Your task to perform on an android device: change notifications settings Image 0: 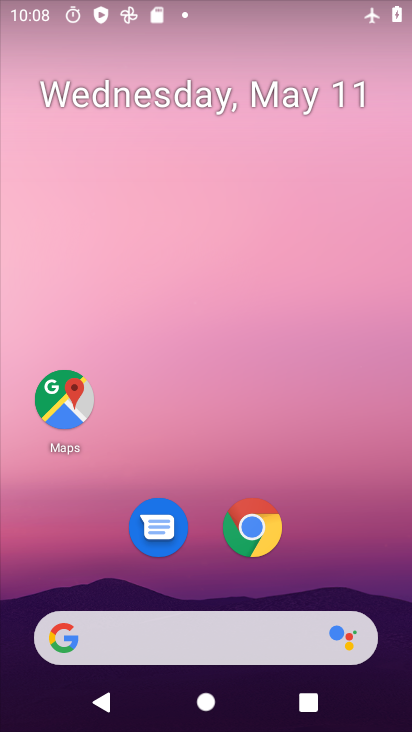
Step 0: drag from (196, 534) to (255, 324)
Your task to perform on an android device: change notifications settings Image 1: 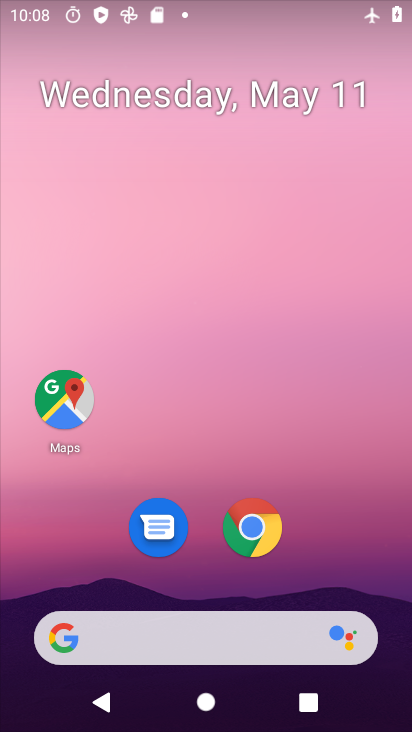
Step 1: drag from (210, 600) to (232, 167)
Your task to perform on an android device: change notifications settings Image 2: 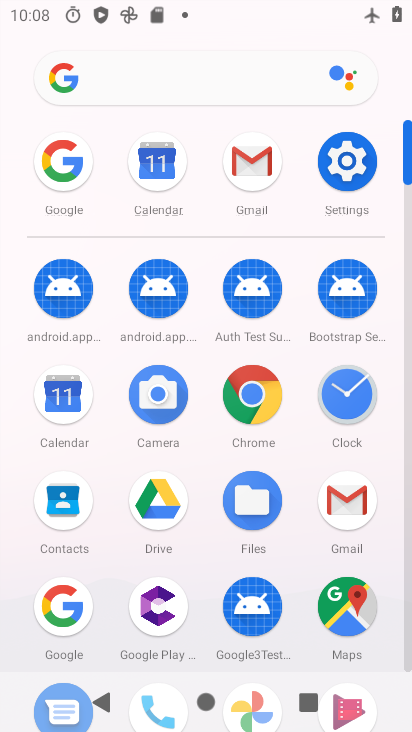
Step 2: click (369, 163)
Your task to perform on an android device: change notifications settings Image 3: 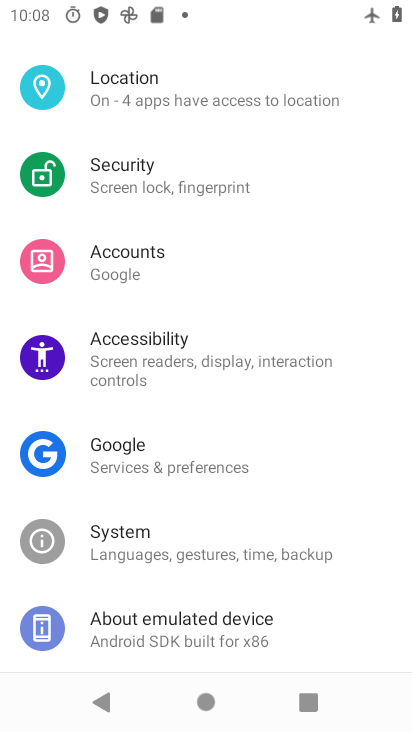
Step 3: drag from (262, 200) to (240, 470)
Your task to perform on an android device: change notifications settings Image 4: 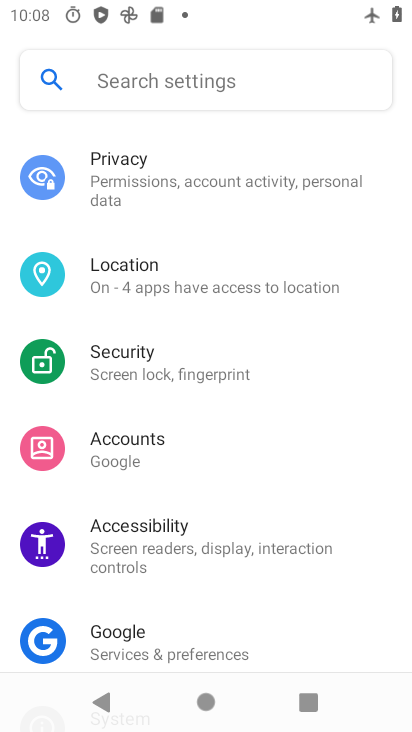
Step 4: drag from (231, 234) to (250, 428)
Your task to perform on an android device: change notifications settings Image 5: 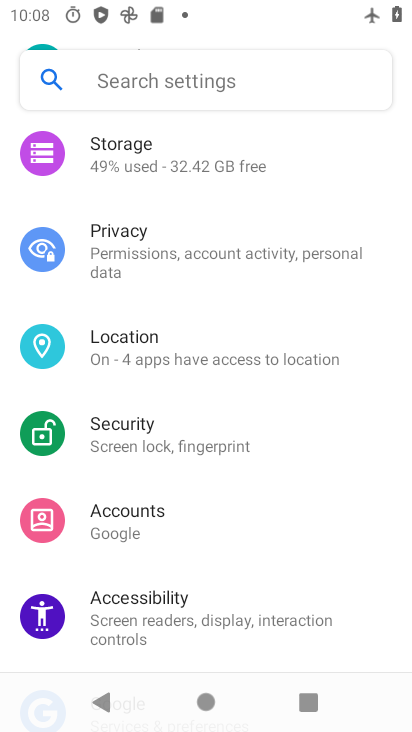
Step 5: drag from (246, 226) to (252, 444)
Your task to perform on an android device: change notifications settings Image 6: 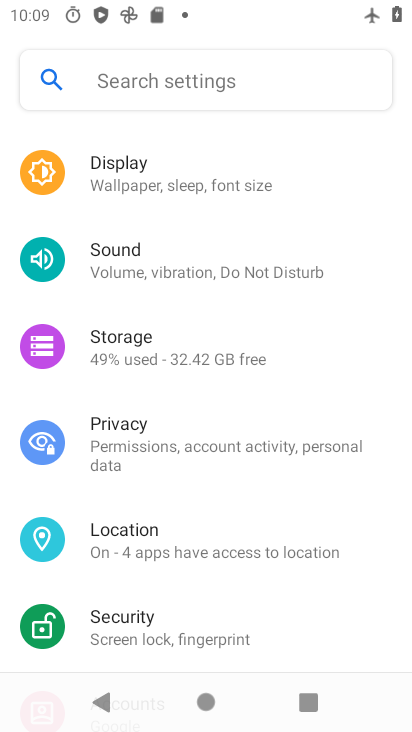
Step 6: drag from (230, 166) to (233, 319)
Your task to perform on an android device: change notifications settings Image 7: 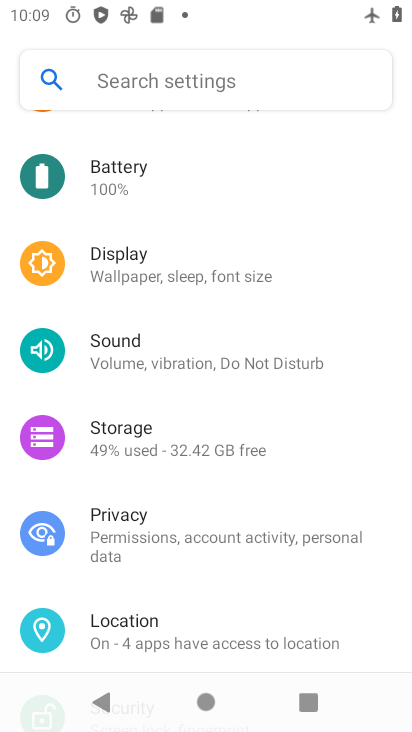
Step 7: drag from (230, 198) to (225, 425)
Your task to perform on an android device: change notifications settings Image 8: 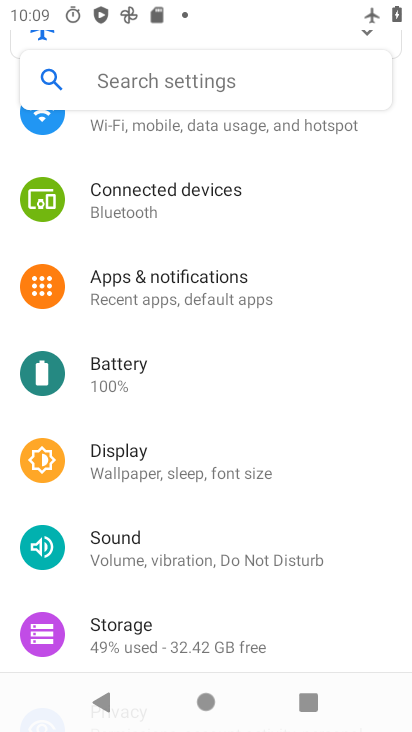
Step 8: click (221, 301)
Your task to perform on an android device: change notifications settings Image 9: 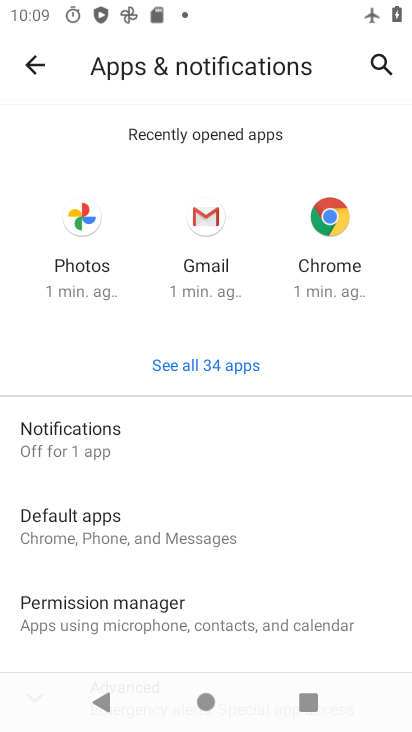
Step 9: click (125, 438)
Your task to perform on an android device: change notifications settings Image 10: 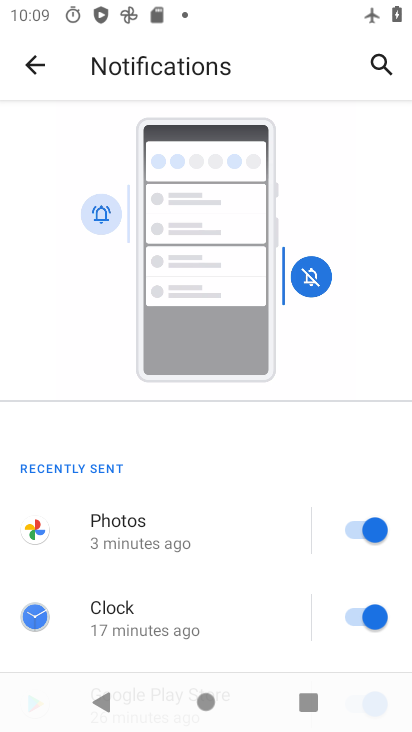
Step 10: drag from (109, 580) to (183, 285)
Your task to perform on an android device: change notifications settings Image 11: 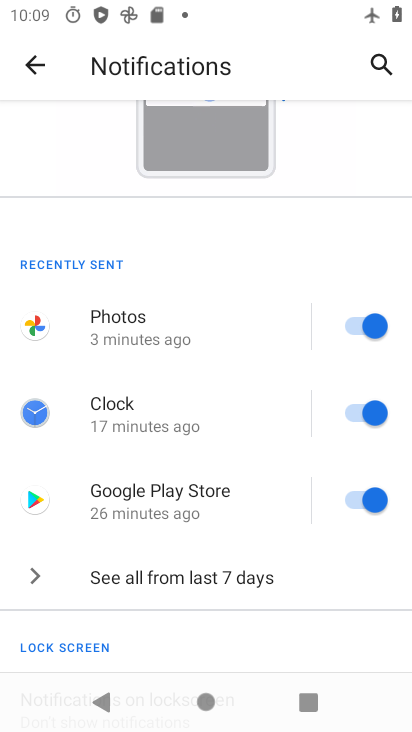
Step 11: click (356, 325)
Your task to perform on an android device: change notifications settings Image 12: 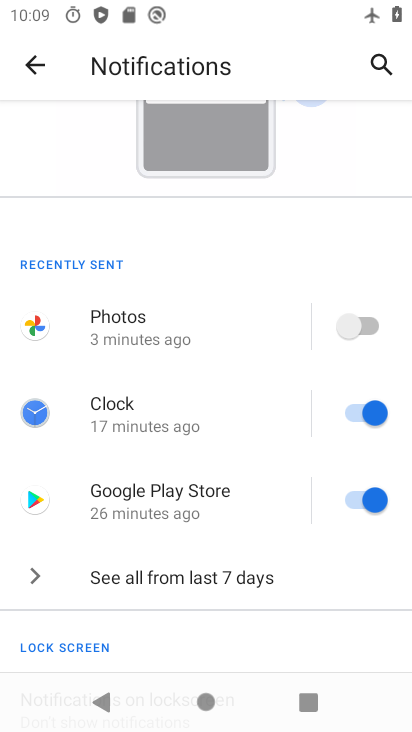
Step 12: task complete